Your task to perform on an android device: turn off wifi Image 0: 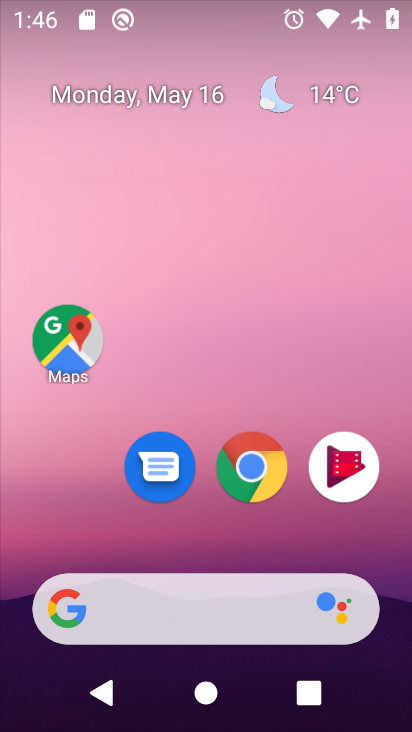
Step 0: drag from (195, 447) to (227, 159)
Your task to perform on an android device: turn off wifi Image 1: 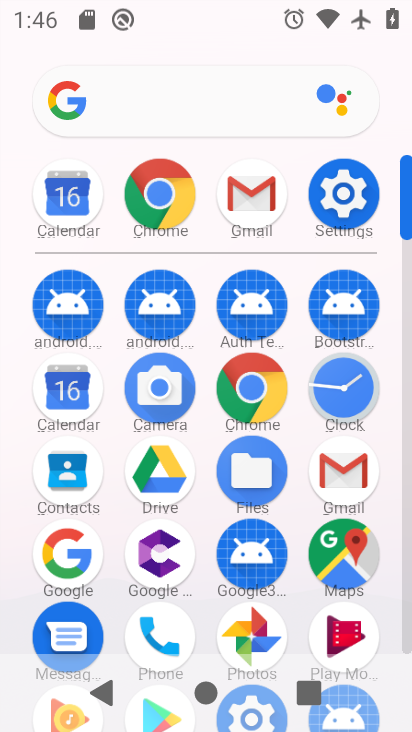
Step 1: click (330, 178)
Your task to perform on an android device: turn off wifi Image 2: 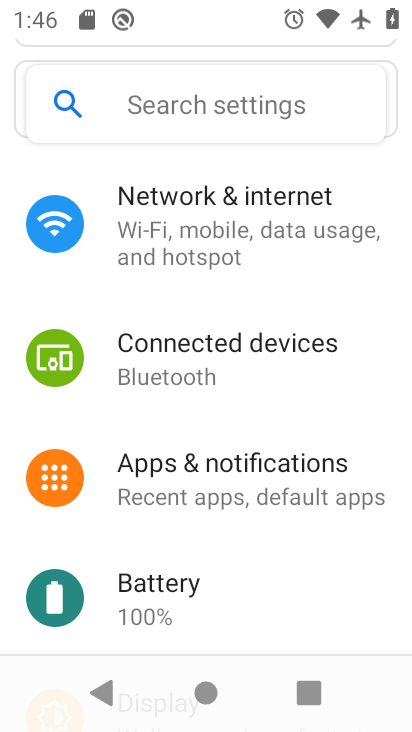
Step 2: click (191, 194)
Your task to perform on an android device: turn off wifi Image 3: 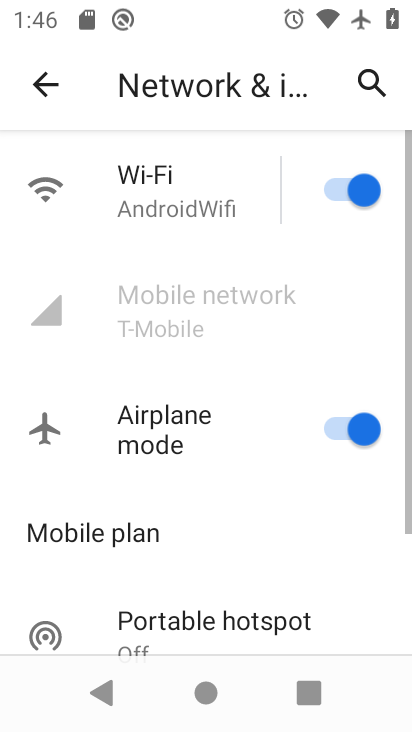
Step 3: click (327, 189)
Your task to perform on an android device: turn off wifi Image 4: 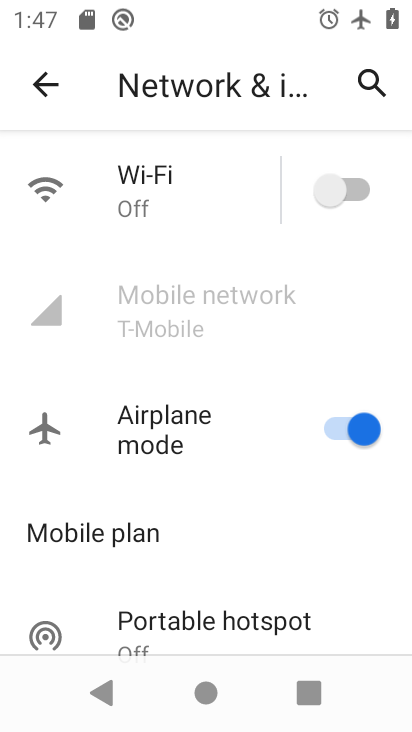
Step 4: task complete